Your task to perform on an android device: Toggle the flashlight Image 0: 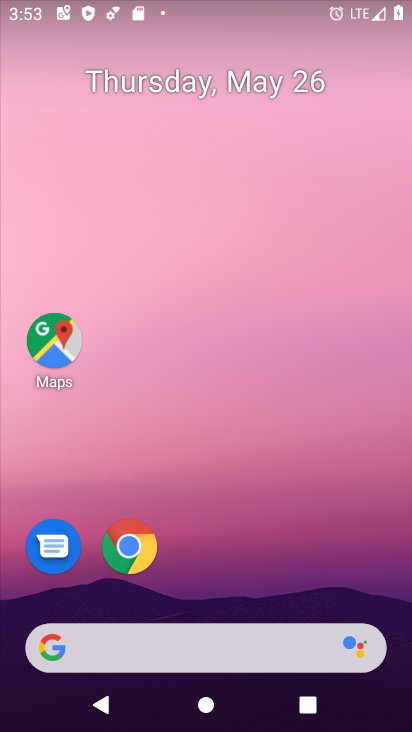
Step 0: drag from (220, 522) to (236, 99)
Your task to perform on an android device: Toggle the flashlight Image 1: 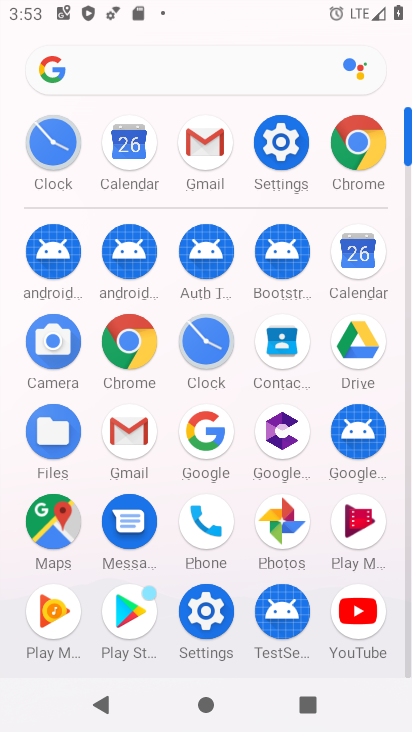
Step 1: click (282, 141)
Your task to perform on an android device: Toggle the flashlight Image 2: 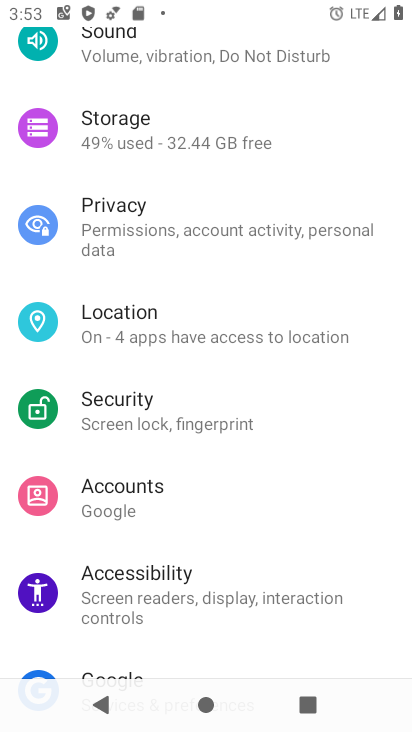
Step 2: drag from (182, 130) to (164, 632)
Your task to perform on an android device: Toggle the flashlight Image 3: 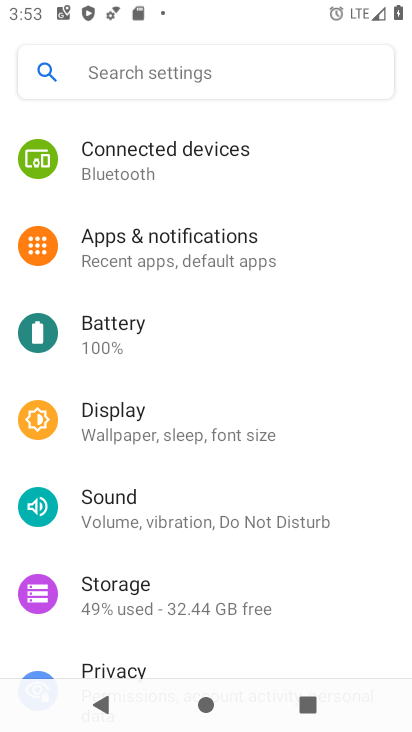
Step 3: click (142, 72)
Your task to perform on an android device: Toggle the flashlight Image 4: 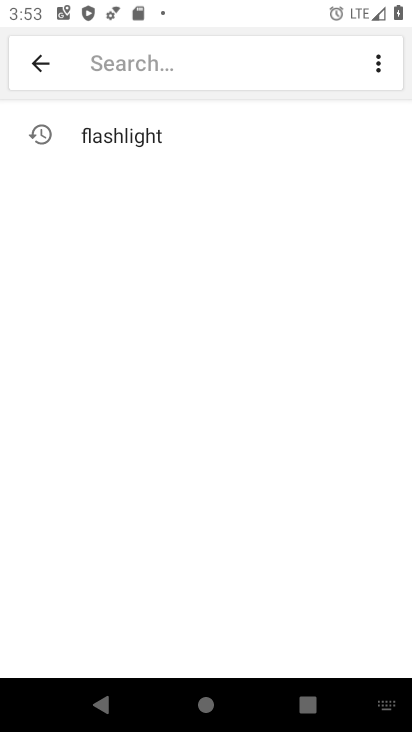
Step 4: type "flashlight"
Your task to perform on an android device: Toggle the flashlight Image 5: 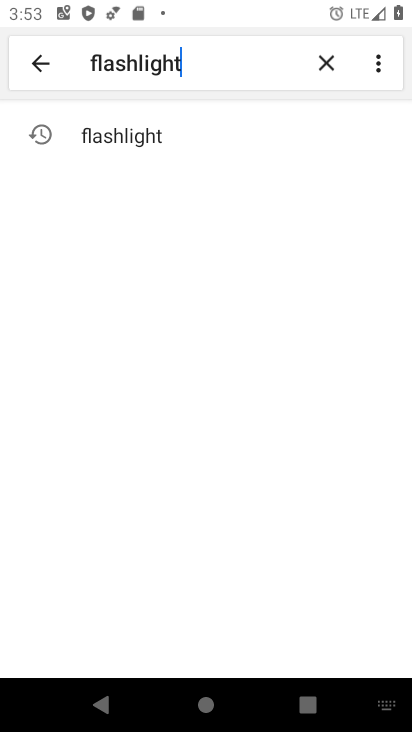
Step 5: click (127, 137)
Your task to perform on an android device: Toggle the flashlight Image 6: 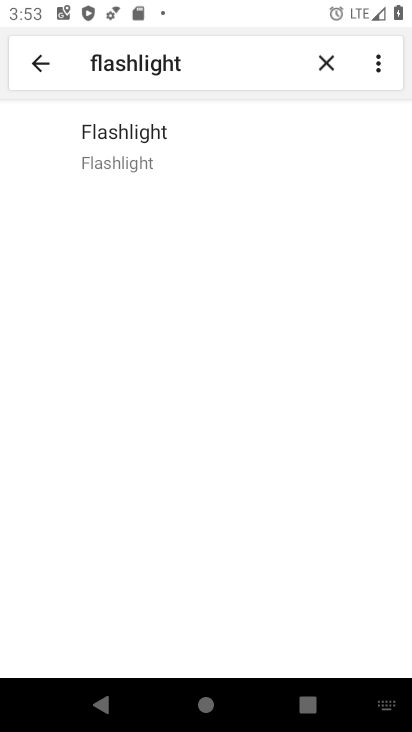
Step 6: click (127, 127)
Your task to perform on an android device: Toggle the flashlight Image 7: 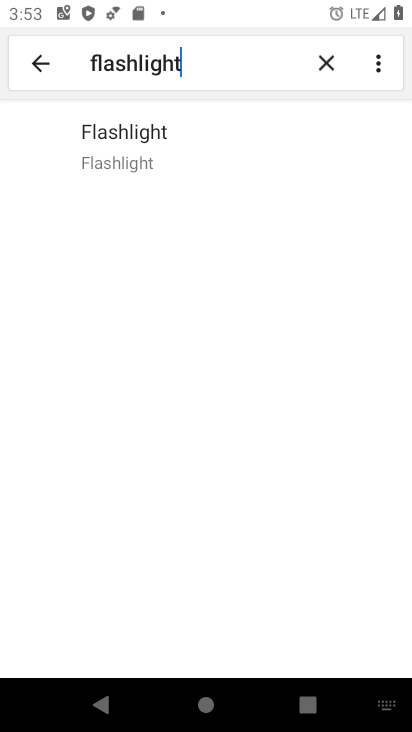
Step 7: task complete